Your task to perform on an android device: Open Google Maps and go to "Timeline" Image 0: 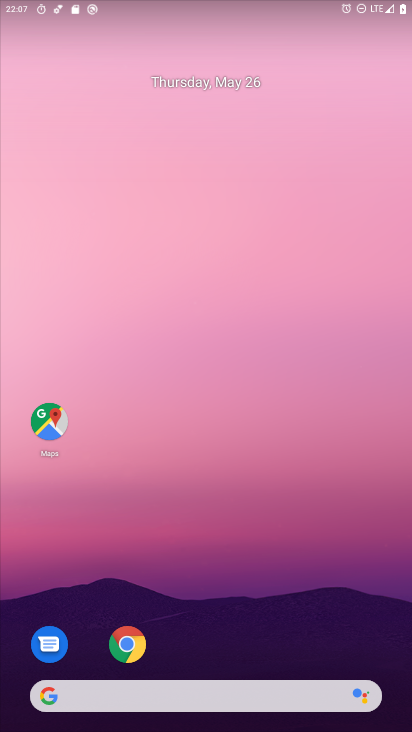
Step 0: drag from (187, 638) to (278, 77)
Your task to perform on an android device: Open Google Maps and go to "Timeline" Image 1: 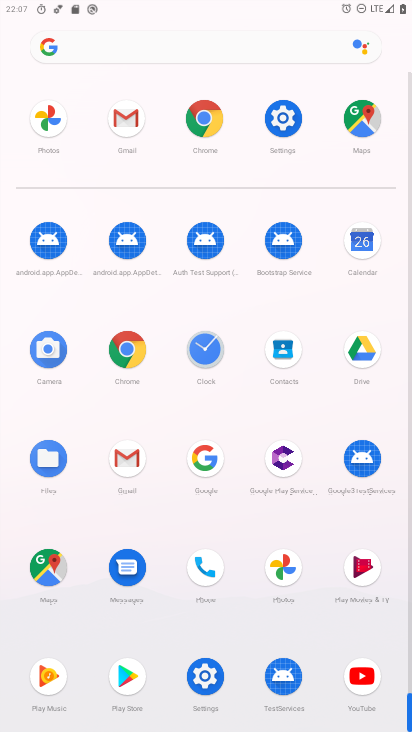
Step 1: click (34, 574)
Your task to perform on an android device: Open Google Maps and go to "Timeline" Image 2: 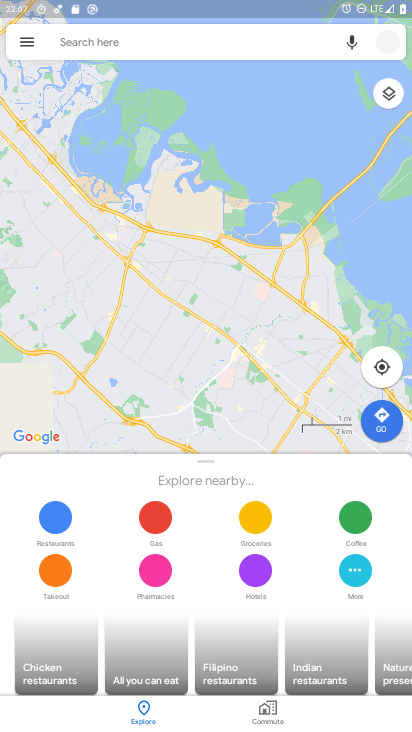
Step 2: click (25, 44)
Your task to perform on an android device: Open Google Maps and go to "Timeline" Image 3: 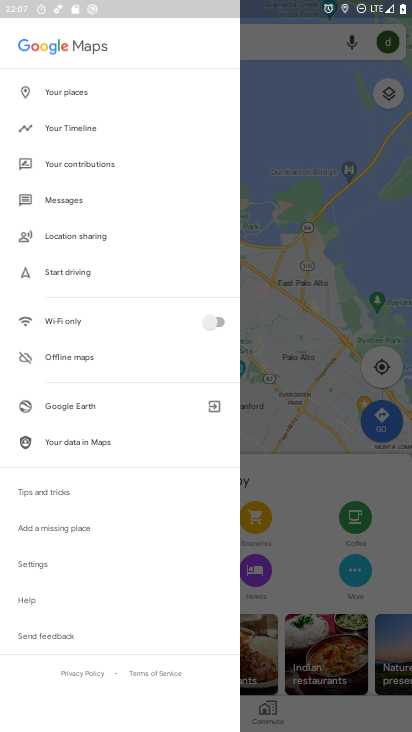
Step 3: click (99, 127)
Your task to perform on an android device: Open Google Maps and go to "Timeline" Image 4: 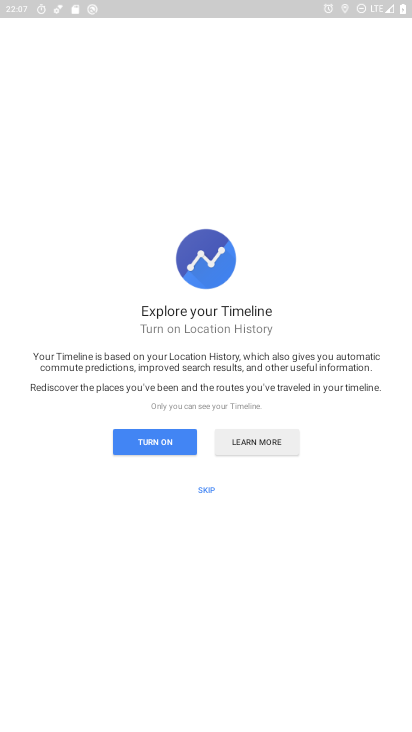
Step 4: click (158, 450)
Your task to perform on an android device: Open Google Maps and go to "Timeline" Image 5: 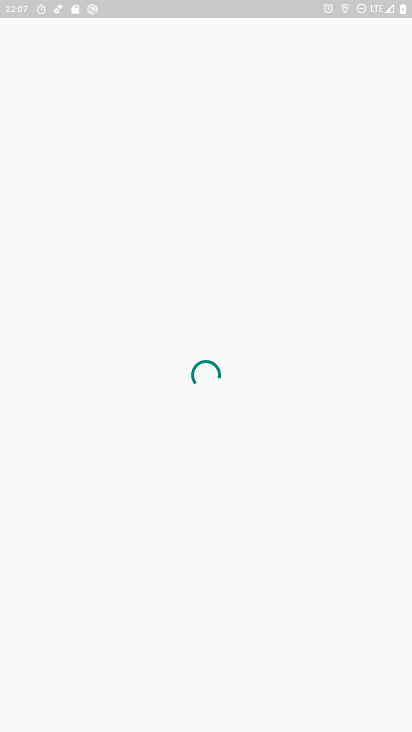
Step 5: task complete